Your task to perform on an android device: Go to Wikipedia Image 0: 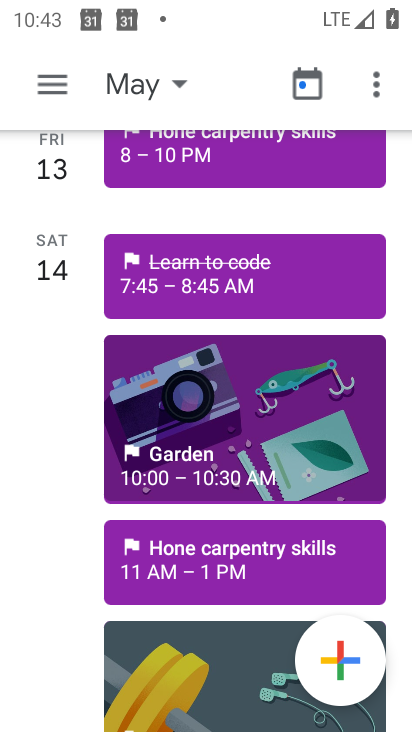
Step 0: press home button
Your task to perform on an android device: Go to Wikipedia Image 1: 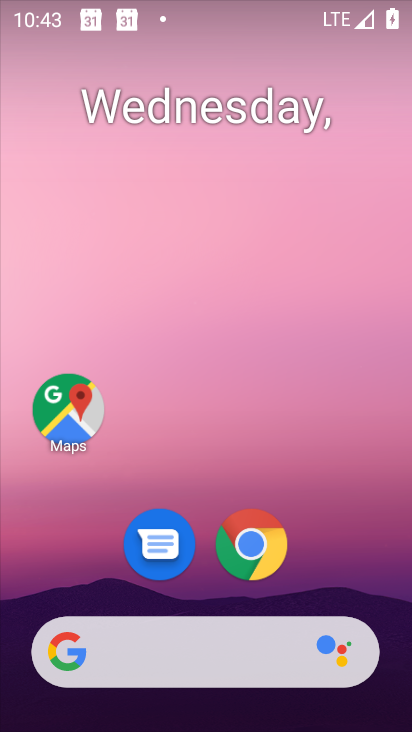
Step 1: click (257, 555)
Your task to perform on an android device: Go to Wikipedia Image 2: 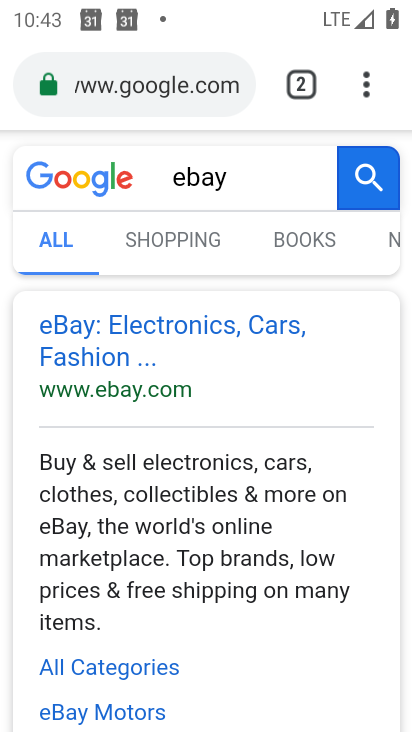
Step 2: click (143, 71)
Your task to perform on an android device: Go to Wikipedia Image 3: 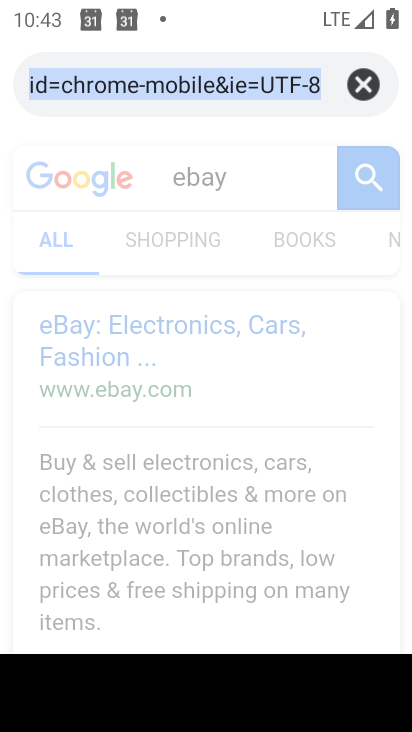
Step 3: type "wikipedia"
Your task to perform on an android device: Go to Wikipedia Image 4: 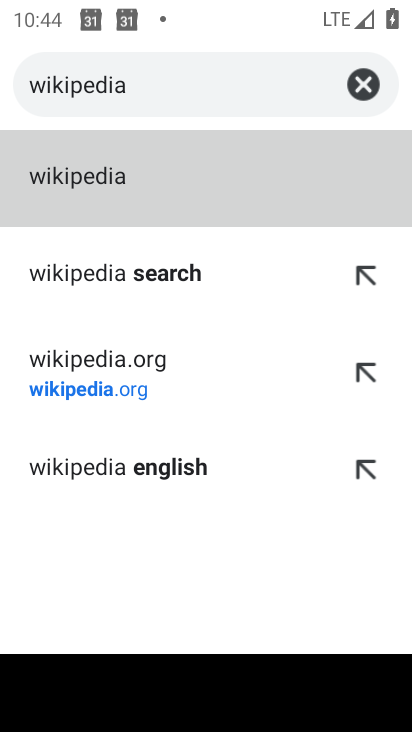
Step 4: click (149, 176)
Your task to perform on an android device: Go to Wikipedia Image 5: 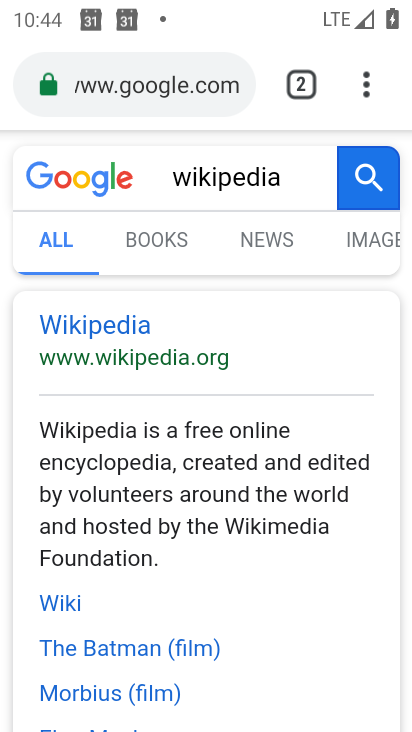
Step 5: click (124, 314)
Your task to perform on an android device: Go to Wikipedia Image 6: 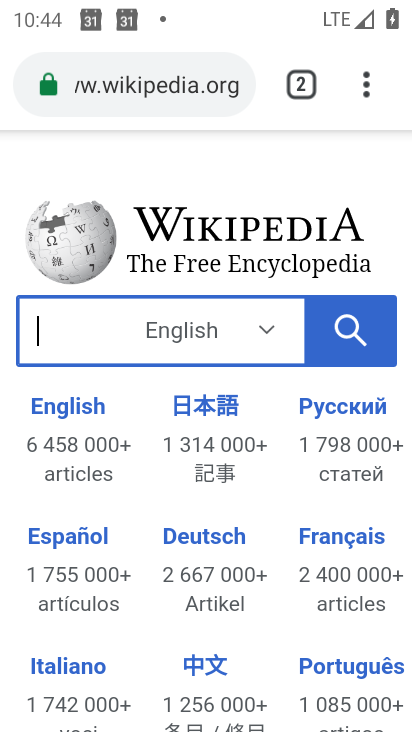
Step 6: task complete